Your task to perform on an android device: Search for "macbook air" on ebay, select the first entry, and add it to the cart. Image 0: 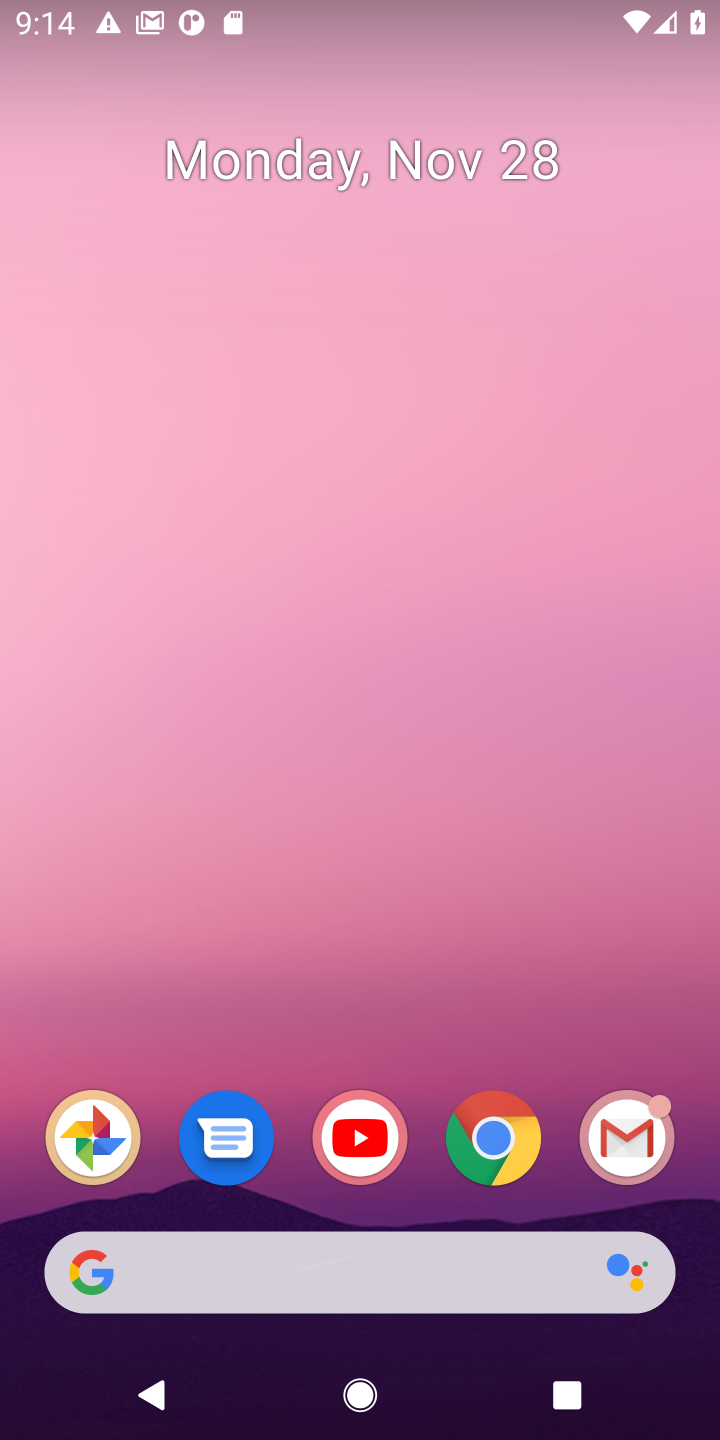
Step 0: click (512, 1144)
Your task to perform on an android device: Search for "macbook air" on ebay, select the first entry, and add it to the cart. Image 1: 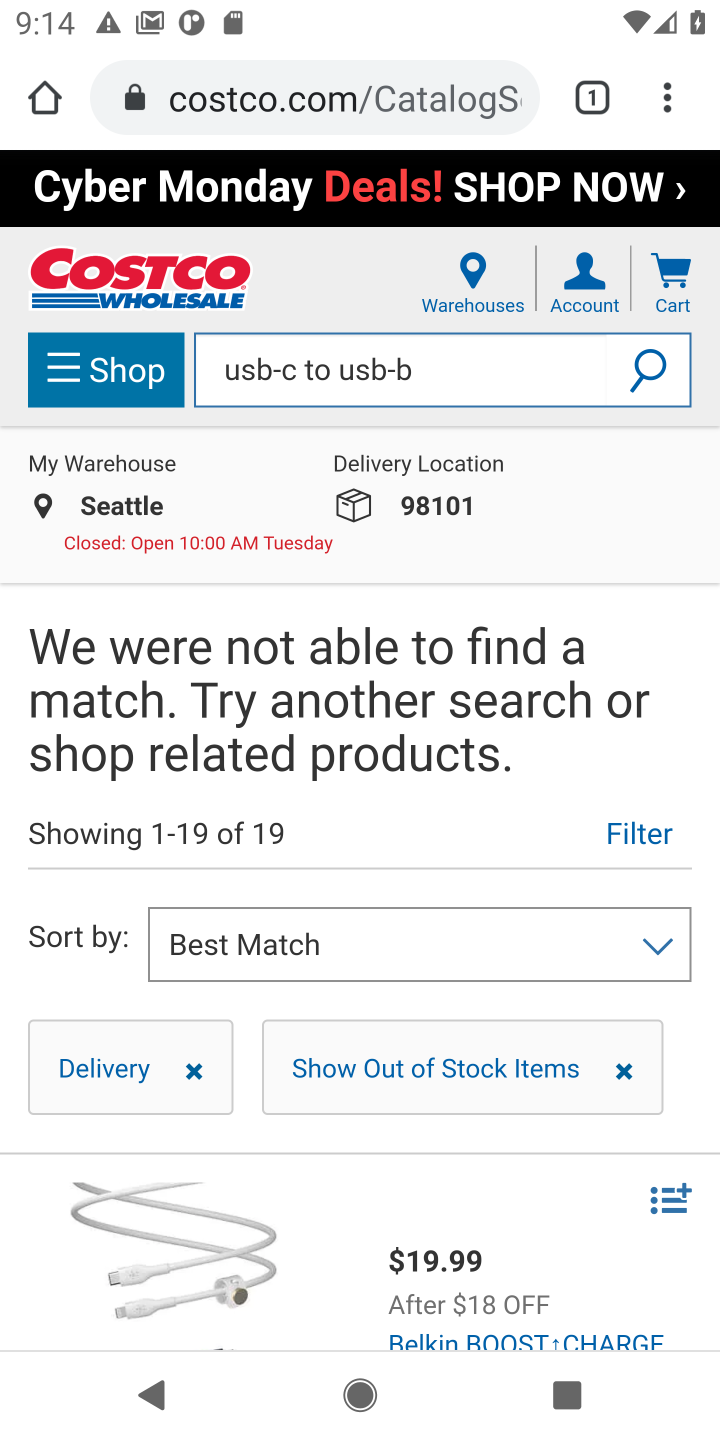
Step 1: click (289, 113)
Your task to perform on an android device: Search for "macbook air" on ebay, select the first entry, and add it to the cart. Image 2: 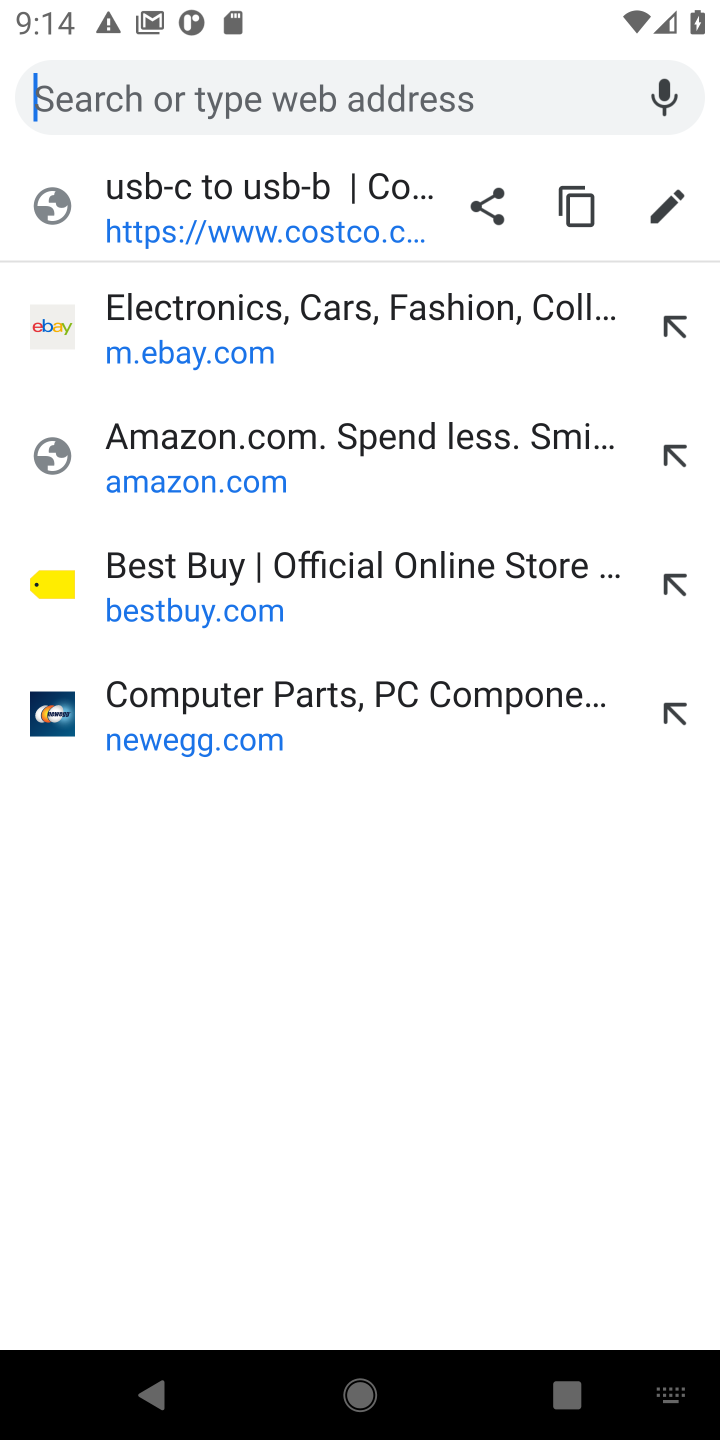
Step 2: click (183, 328)
Your task to perform on an android device: Search for "macbook air" on ebay, select the first entry, and add it to the cart. Image 3: 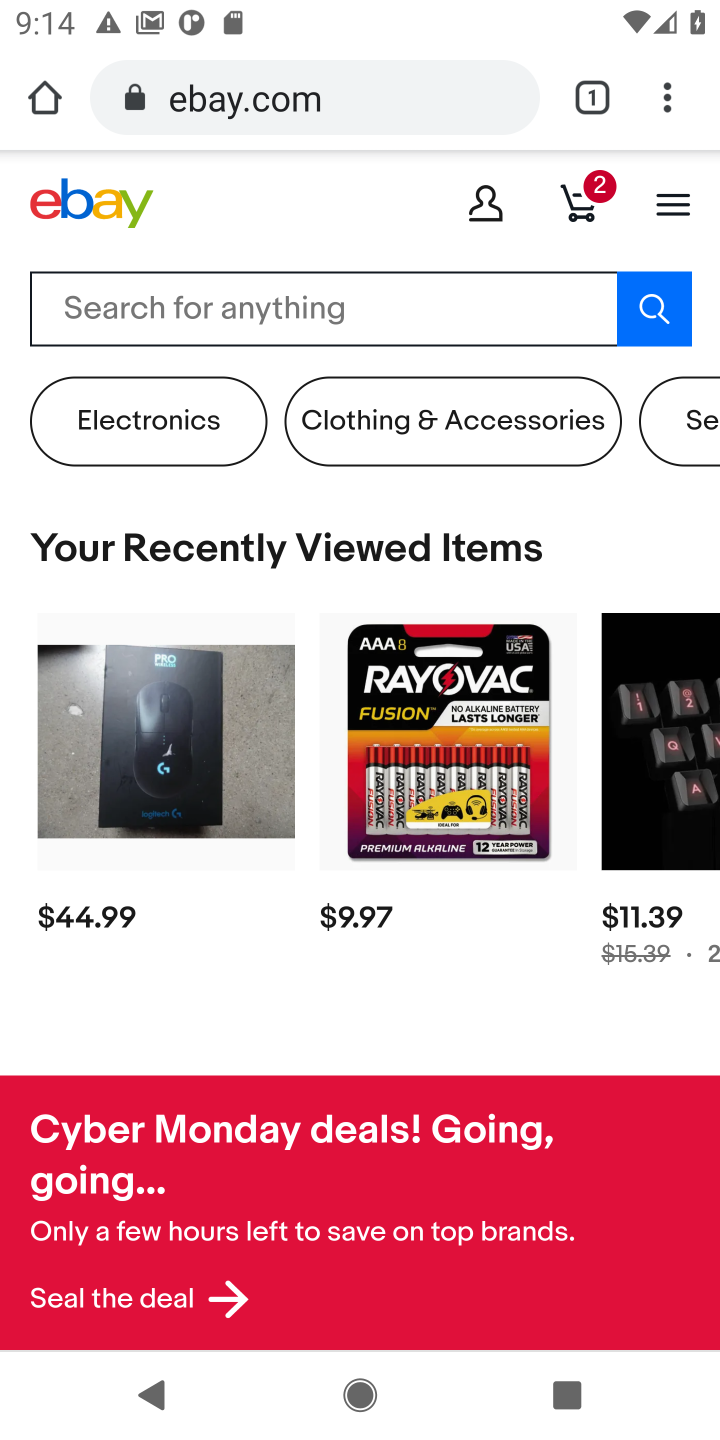
Step 3: click (191, 315)
Your task to perform on an android device: Search for "macbook air" on ebay, select the first entry, and add it to the cart. Image 4: 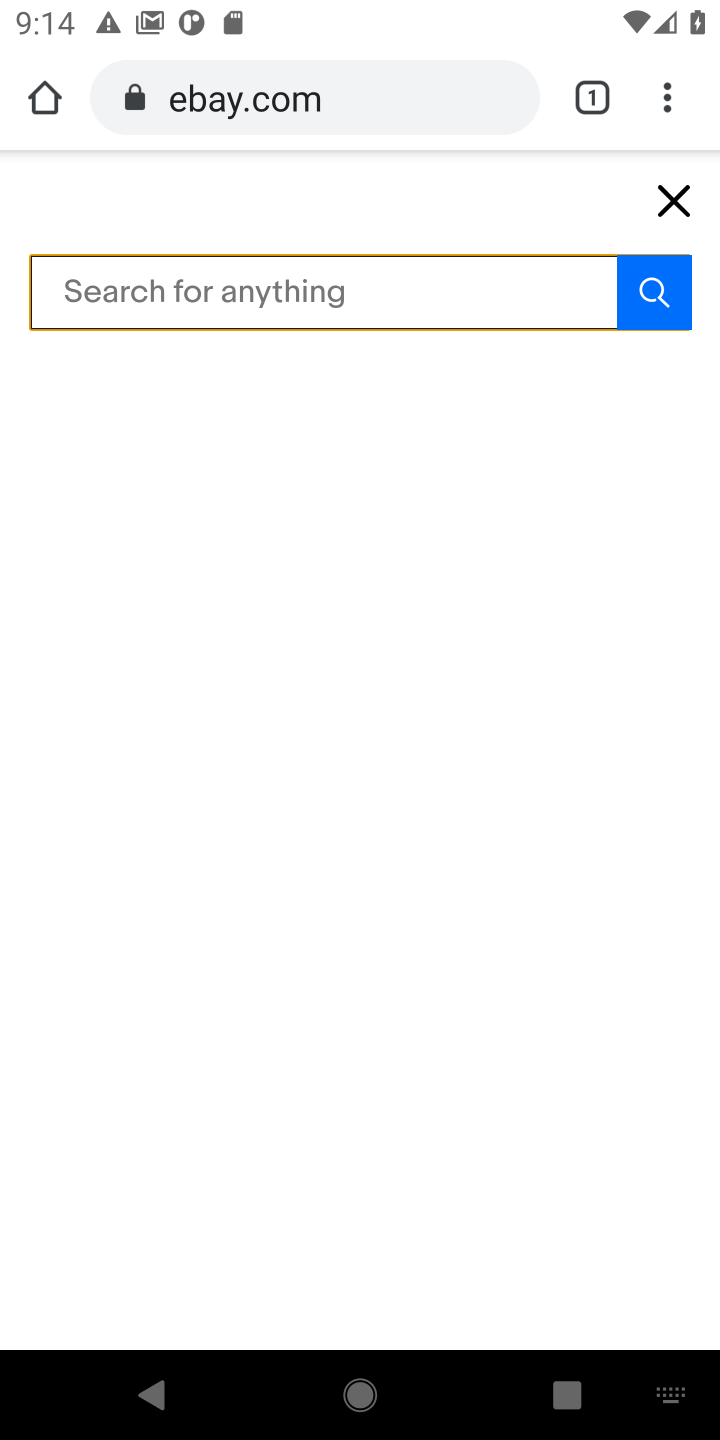
Step 4: type "macbook air"
Your task to perform on an android device: Search for "macbook air" on ebay, select the first entry, and add it to the cart. Image 5: 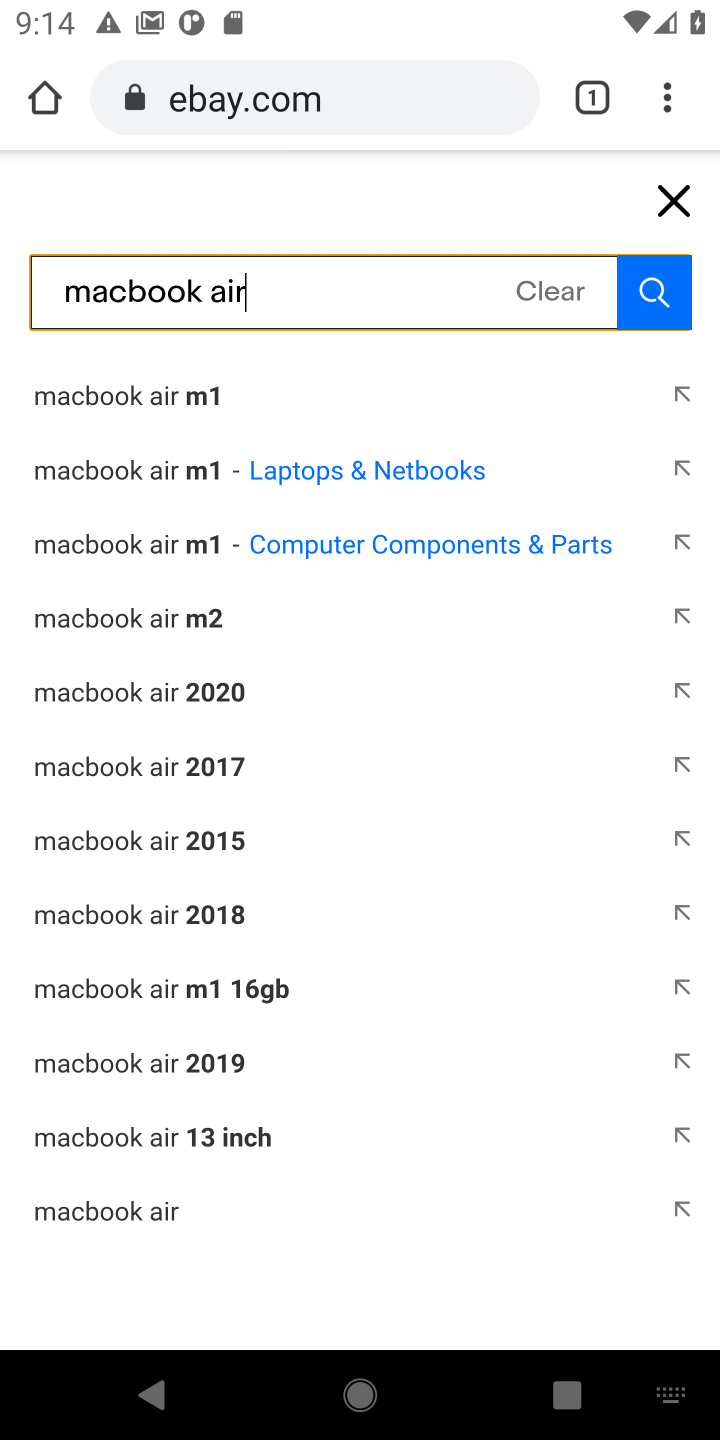
Step 5: click (61, 1212)
Your task to perform on an android device: Search for "macbook air" on ebay, select the first entry, and add it to the cart. Image 6: 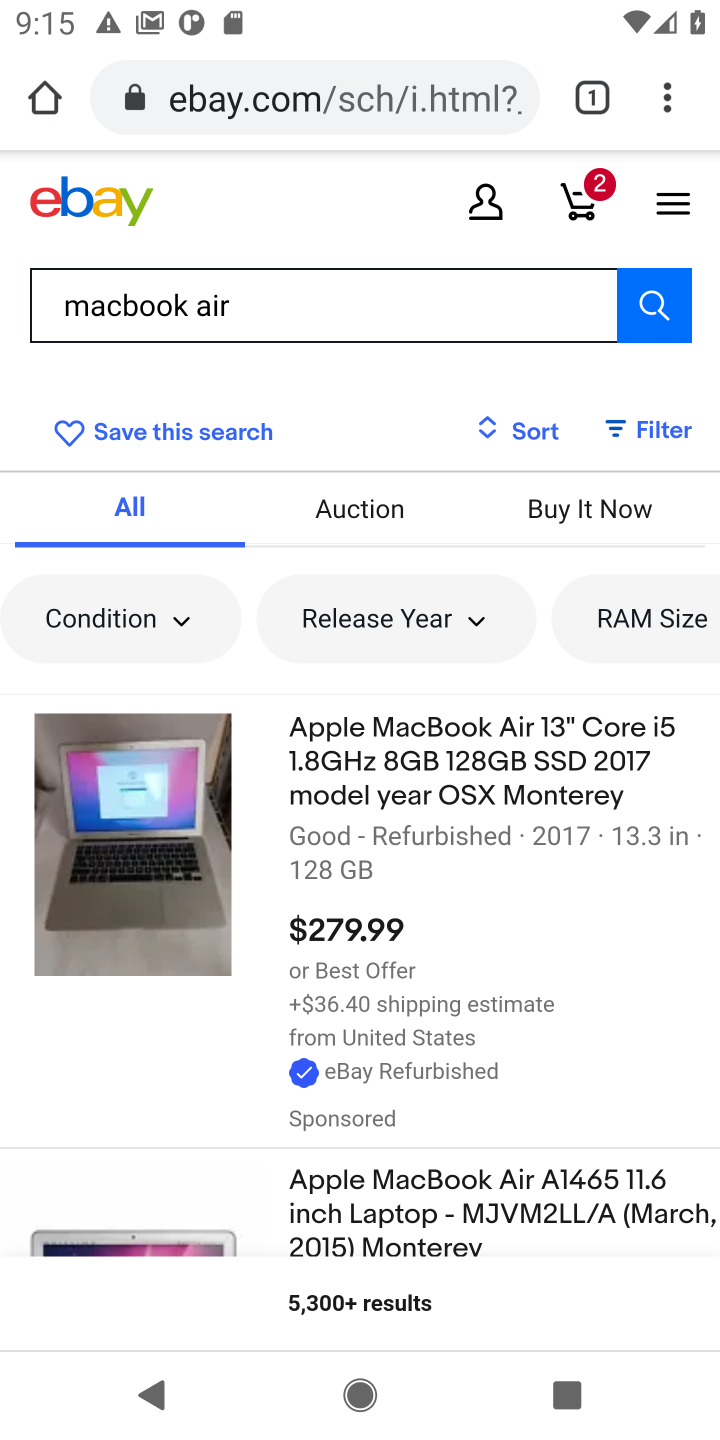
Step 6: click (370, 761)
Your task to perform on an android device: Search for "macbook air" on ebay, select the first entry, and add it to the cart. Image 7: 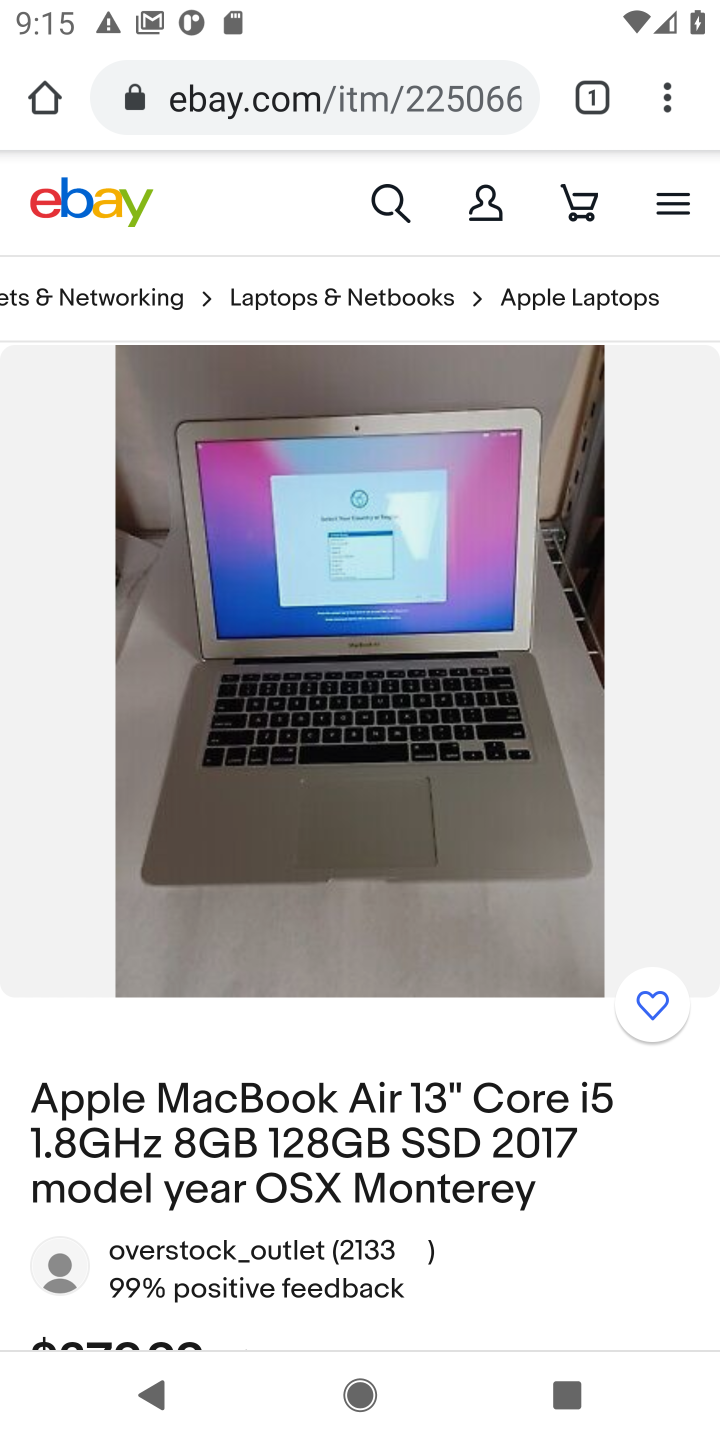
Step 7: drag from (479, 1132) to (464, 653)
Your task to perform on an android device: Search for "macbook air" on ebay, select the first entry, and add it to the cart. Image 8: 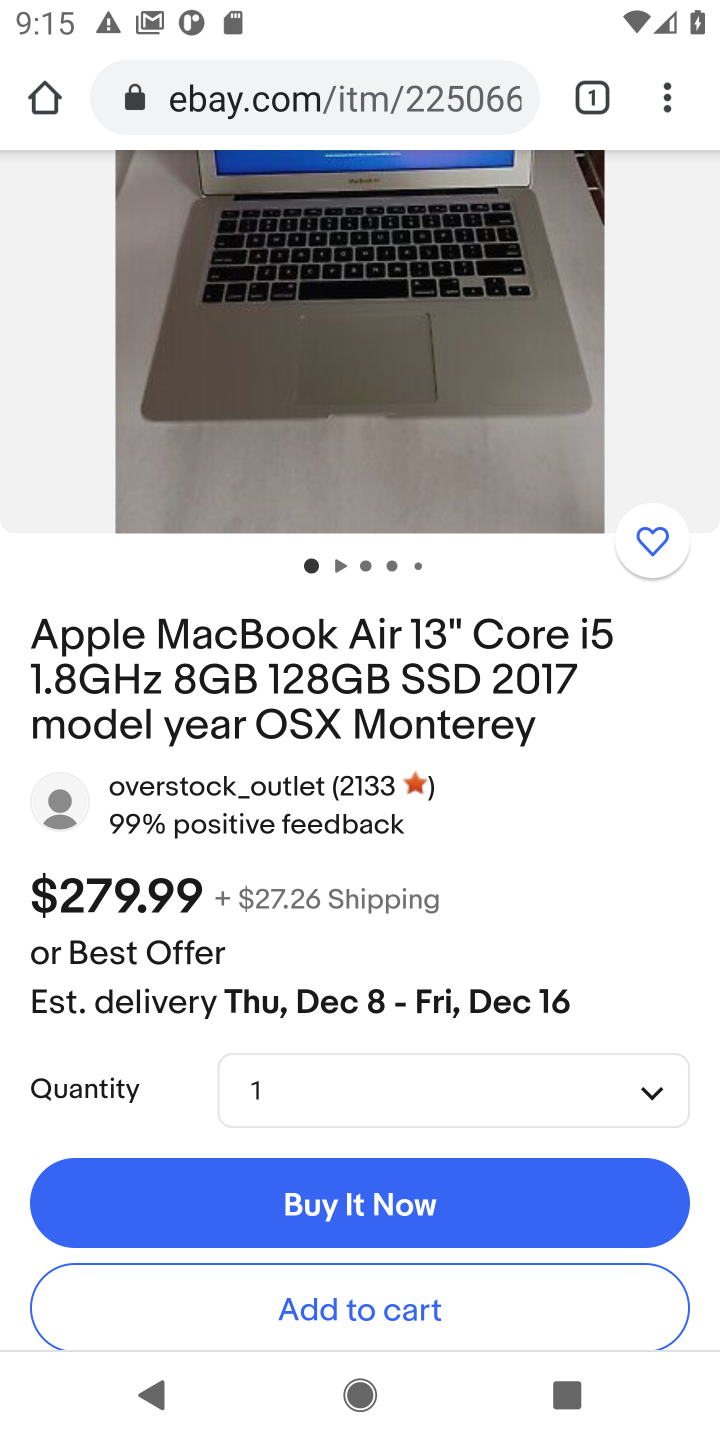
Step 8: drag from (551, 1068) to (530, 717)
Your task to perform on an android device: Search for "macbook air" on ebay, select the first entry, and add it to the cart. Image 9: 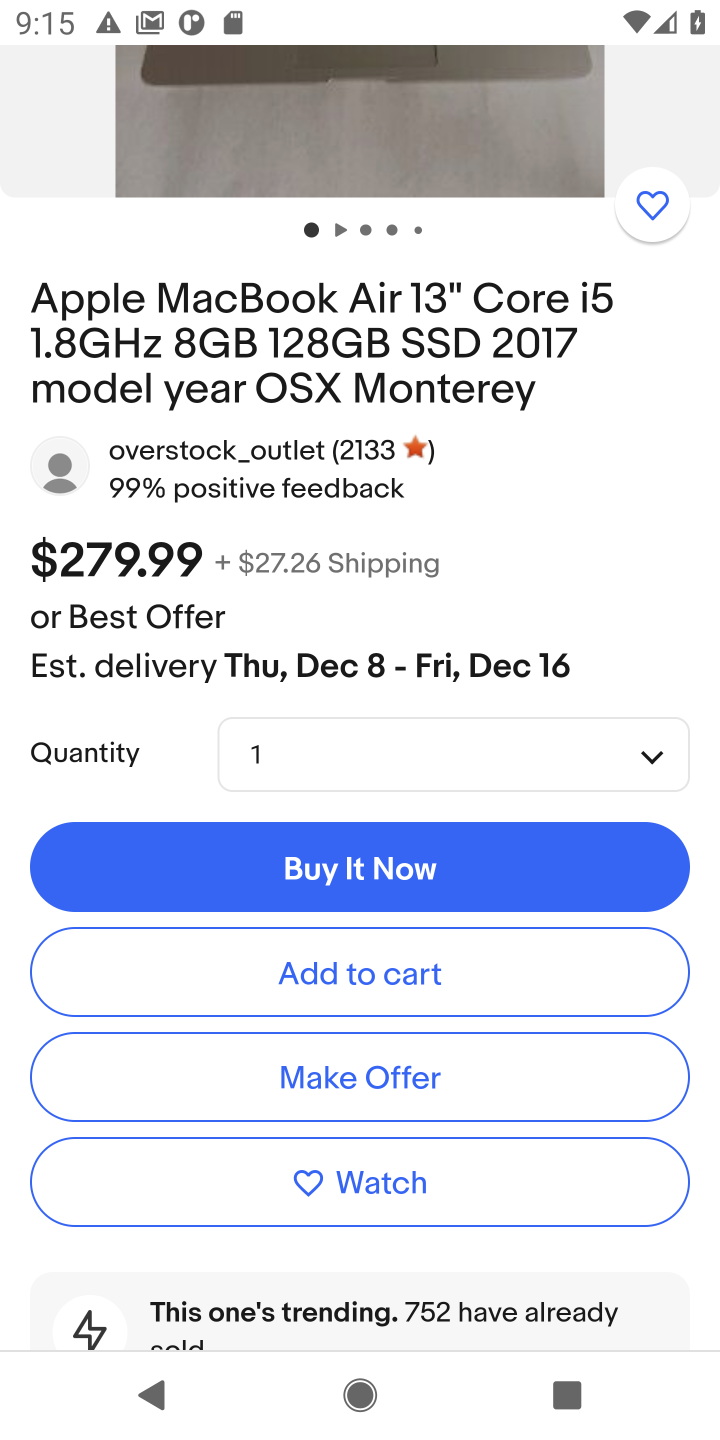
Step 9: click (323, 980)
Your task to perform on an android device: Search for "macbook air" on ebay, select the first entry, and add it to the cart. Image 10: 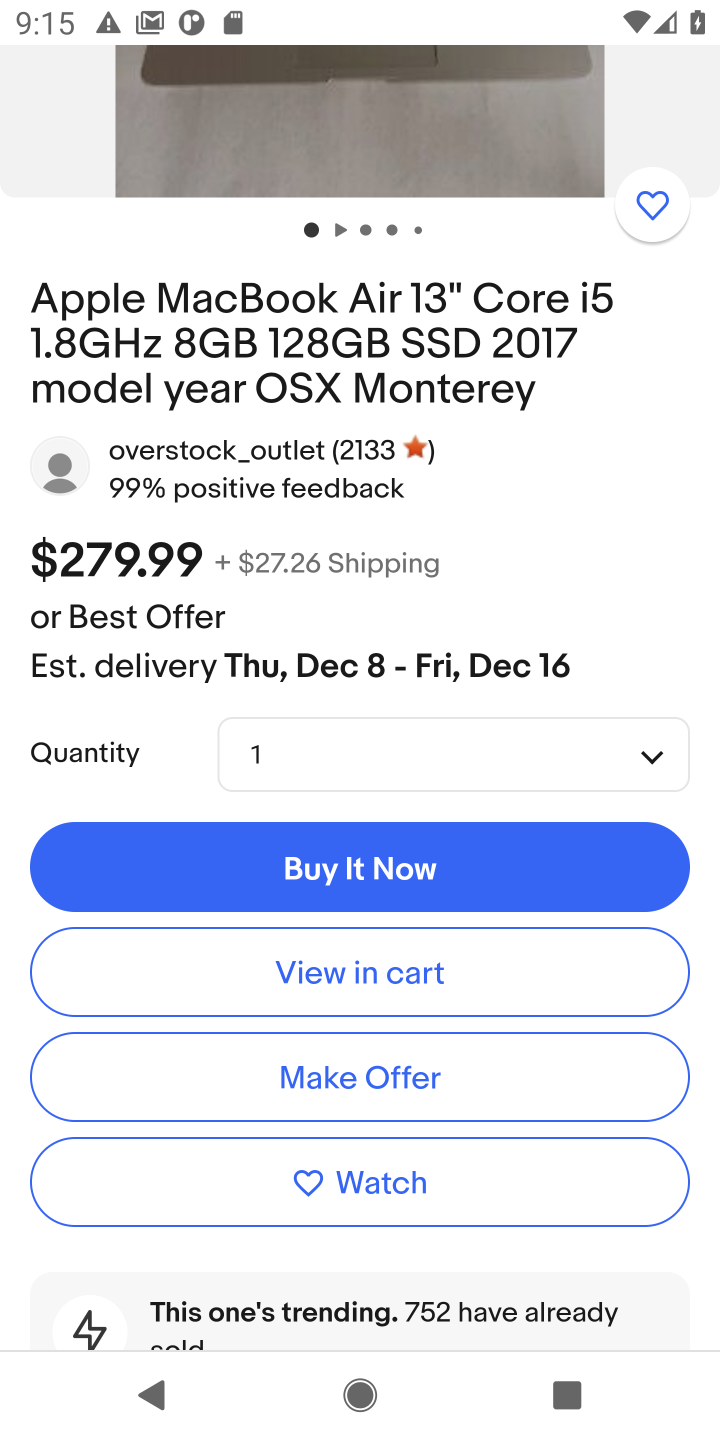
Step 10: task complete